Your task to perform on an android device: change timer sound Image 0: 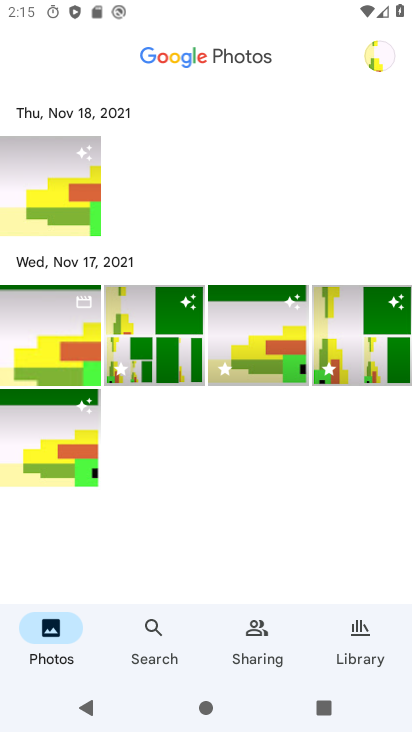
Step 0: press home button
Your task to perform on an android device: change timer sound Image 1: 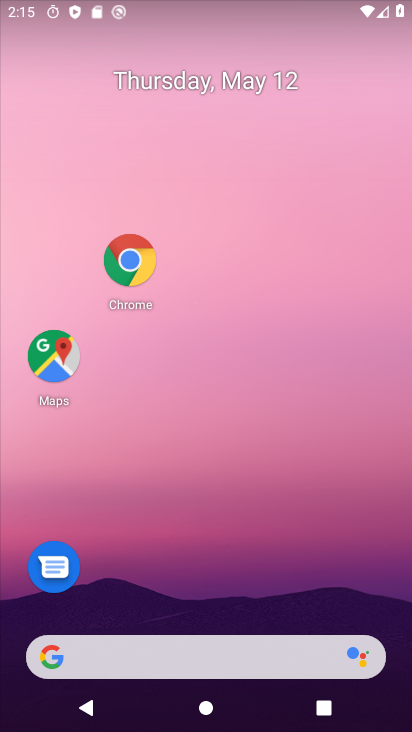
Step 1: drag from (247, 466) to (252, 211)
Your task to perform on an android device: change timer sound Image 2: 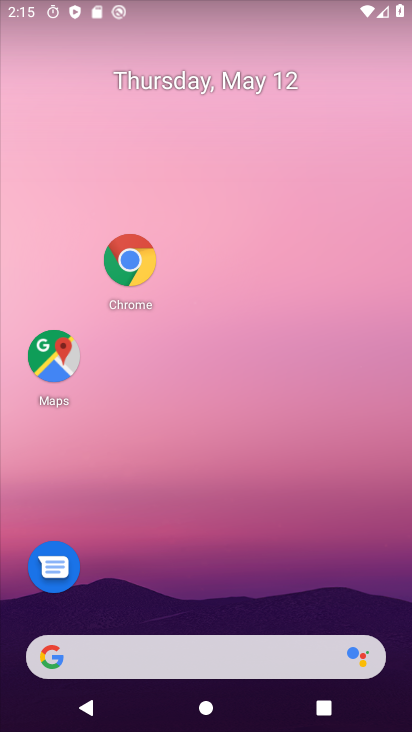
Step 2: drag from (168, 625) to (263, 166)
Your task to perform on an android device: change timer sound Image 3: 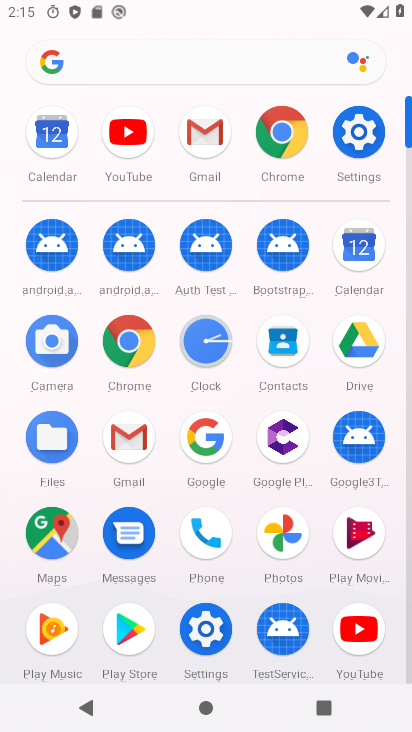
Step 3: click (214, 345)
Your task to perform on an android device: change timer sound Image 4: 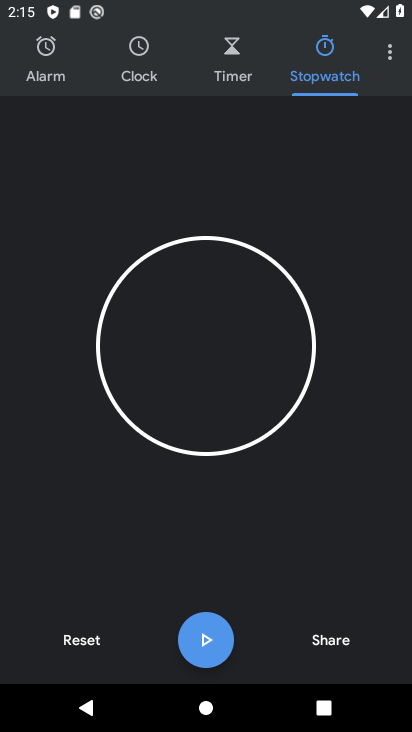
Step 4: click (394, 50)
Your task to perform on an android device: change timer sound Image 5: 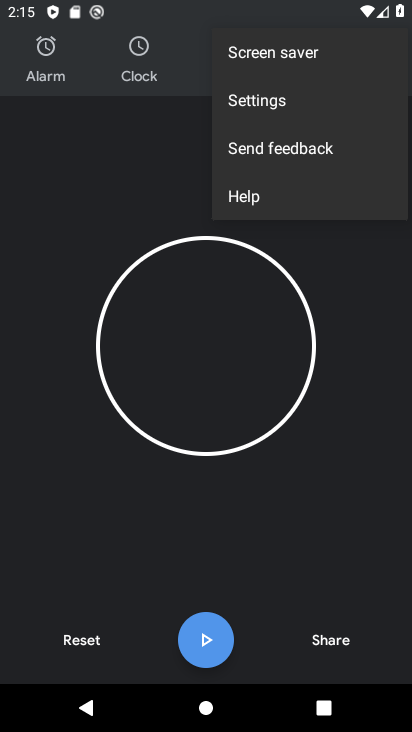
Step 5: click (249, 101)
Your task to perform on an android device: change timer sound Image 6: 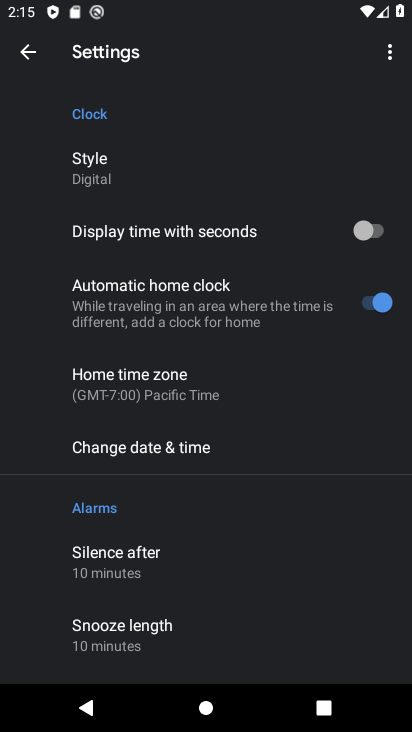
Step 6: drag from (126, 648) to (175, 310)
Your task to perform on an android device: change timer sound Image 7: 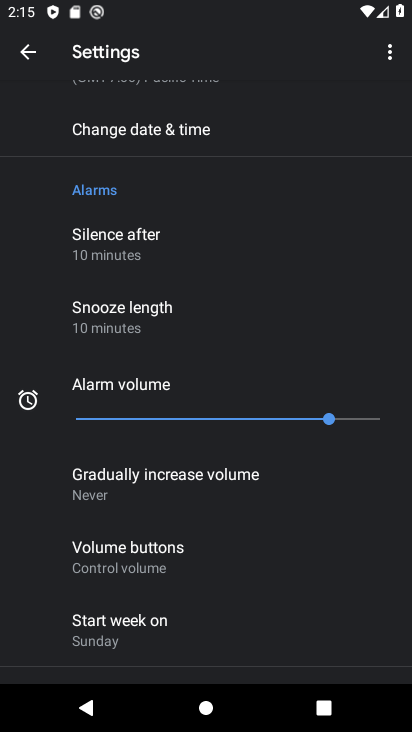
Step 7: drag from (154, 635) to (183, 295)
Your task to perform on an android device: change timer sound Image 8: 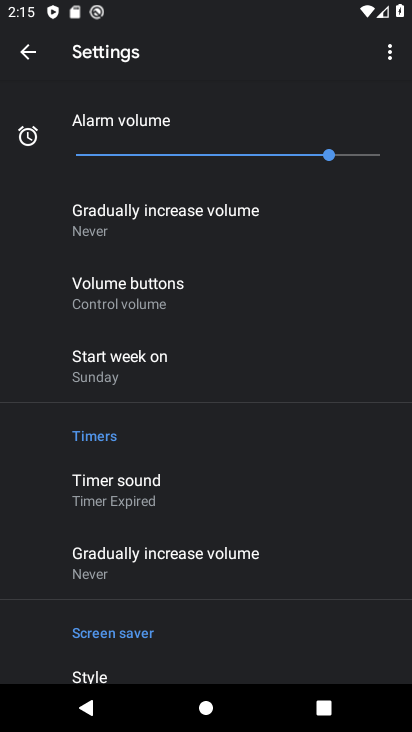
Step 8: click (133, 486)
Your task to perform on an android device: change timer sound Image 9: 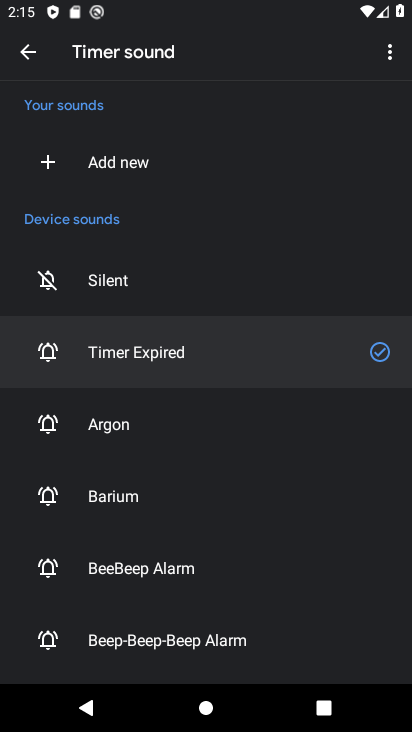
Step 9: click (127, 433)
Your task to perform on an android device: change timer sound Image 10: 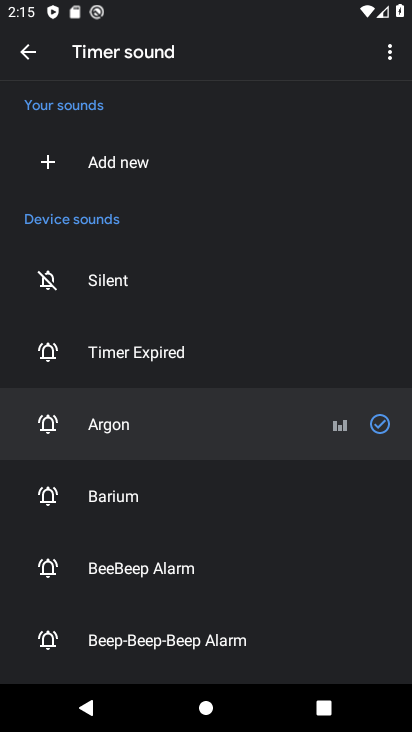
Step 10: task complete